Your task to perform on an android device: turn off priority inbox in the gmail app Image 0: 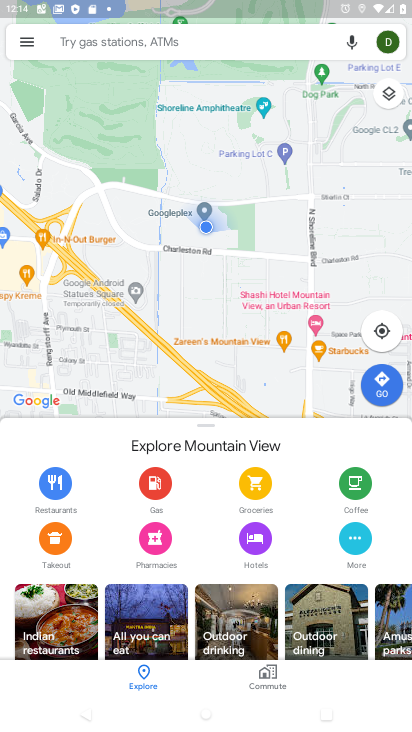
Step 0: press home button
Your task to perform on an android device: turn off priority inbox in the gmail app Image 1: 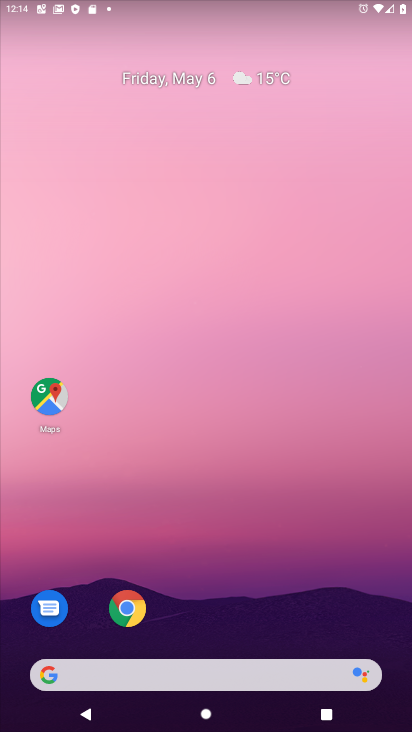
Step 1: drag from (298, 535) to (303, 100)
Your task to perform on an android device: turn off priority inbox in the gmail app Image 2: 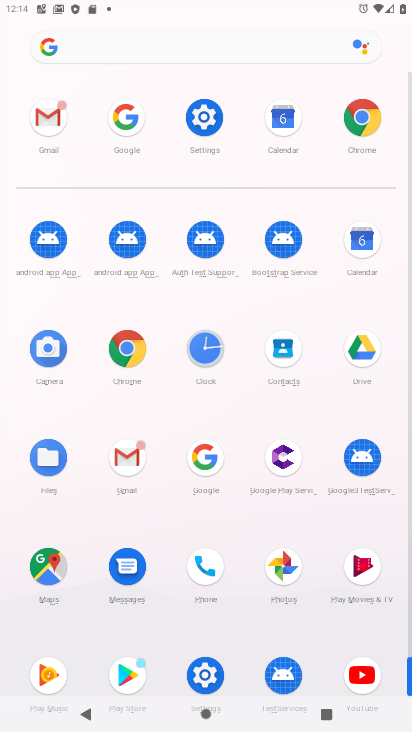
Step 2: click (129, 458)
Your task to perform on an android device: turn off priority inbox in the gmail app Image 3: 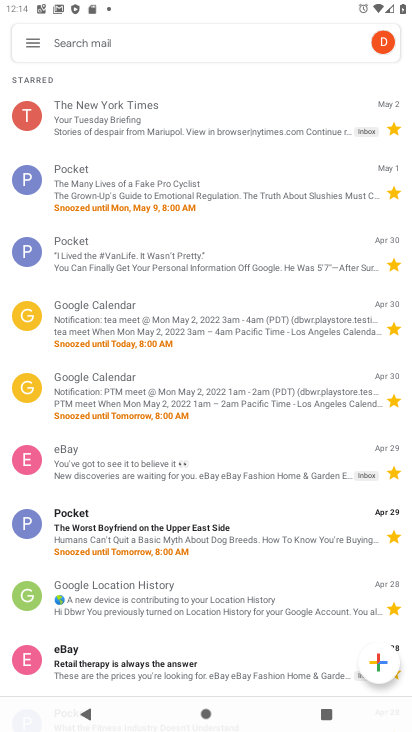
Step 3: click (33, 40)
Your task to perform on an android device: turn off priority inbox in the gmail app Image 4: 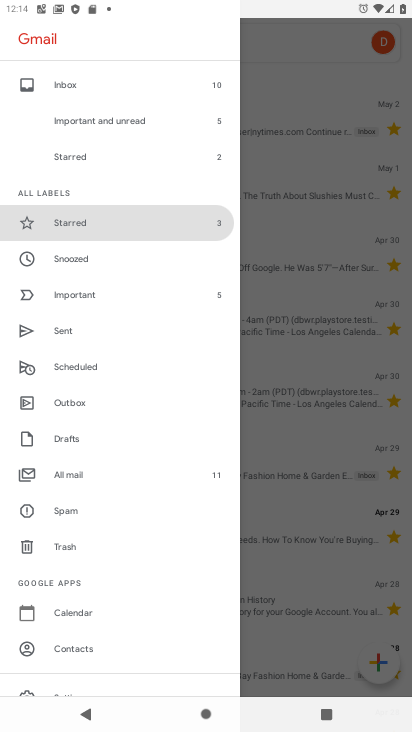
Step 4: drag from (98, 652) to (115, 400)
Your task to perform on an android device: turn off priority inbox in the gmail app Image 5: 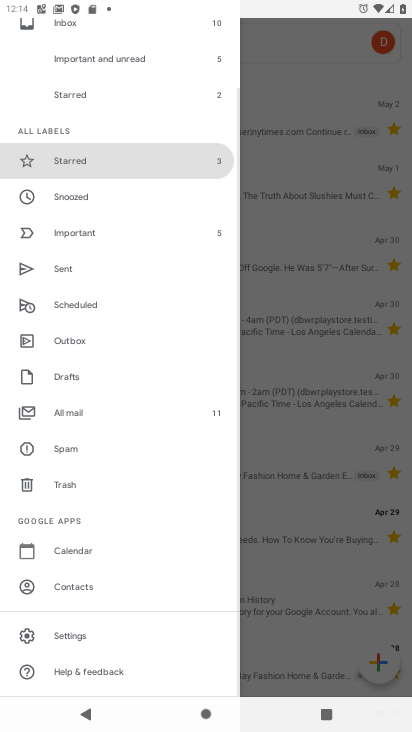
Step 5: click (89, 642)
Your task to perform on an android device: turn off priority inbox in the gmail app Image 6: 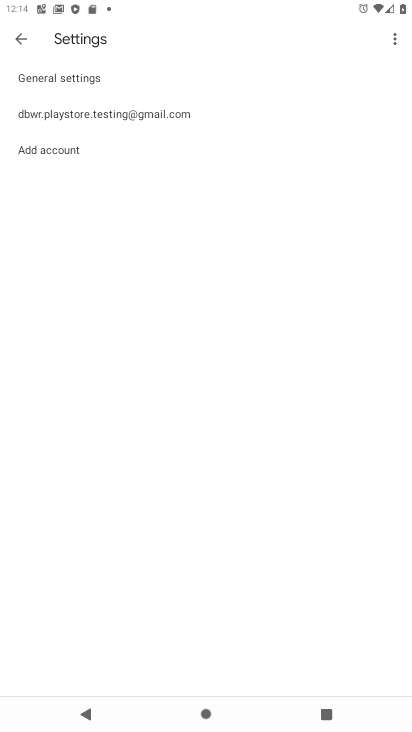
Step 6: click (98, 117)
Your task to perform on an android device: turn off priority inbox in the gmail app Image 7: 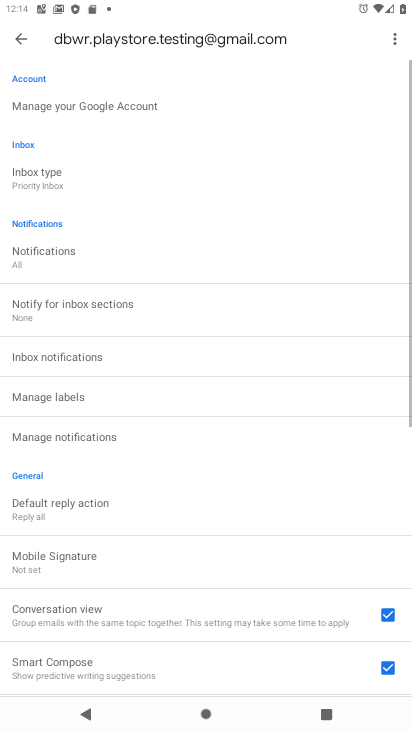
Step 7: click (66, 182)
Your task to perform on an android device: turn off priority inbox in the gmail app Image 8: 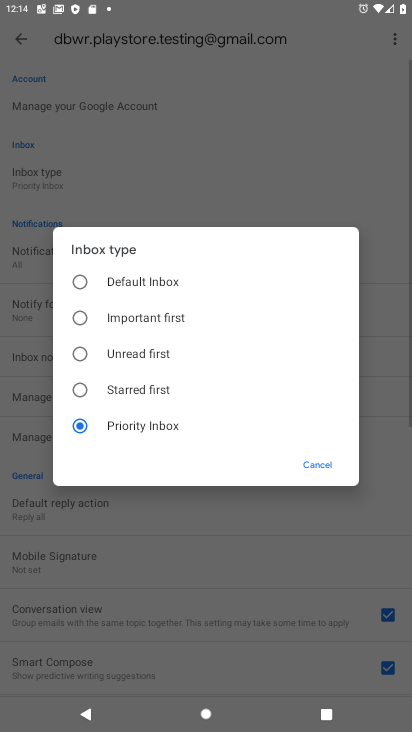
Step 8: click (109, 279)
Your task to perform on an android device: turn off priority inbox in the gmail app Image 9: 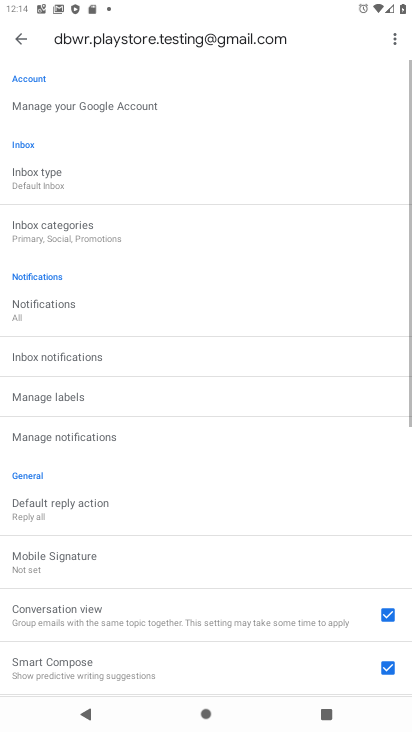
Step 9: task complete